Your task to perform on an android device: turn off translation in the chrome app Image 0: 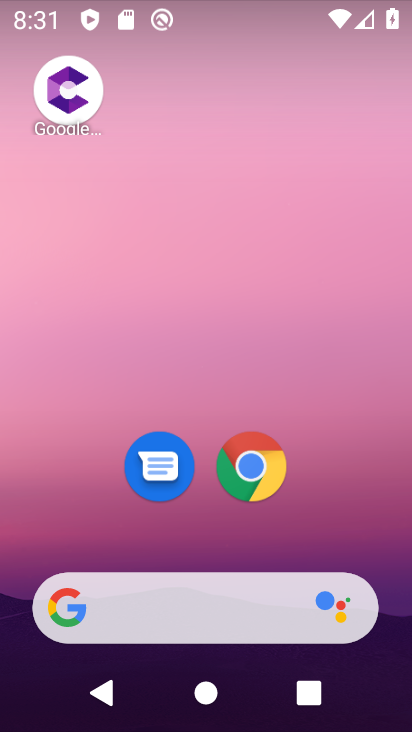
Step 0: click (255, 473)
Your task to perform on an android device: turn off translation in the chrome app Image 1: 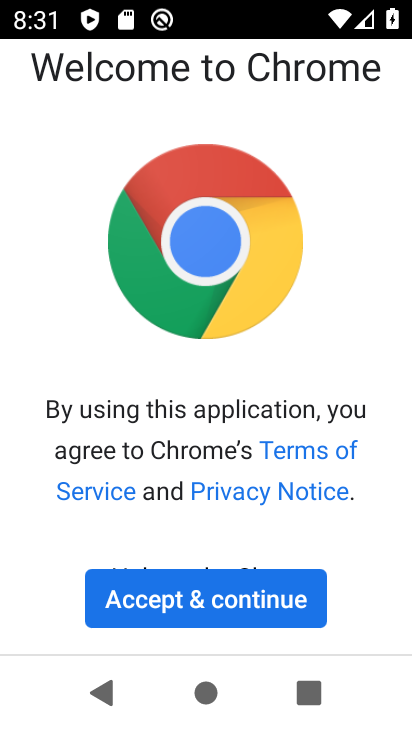
Step 1: click (197, 598)
Your task to perform on an android device: turn off translation in the chrome app Image 2: 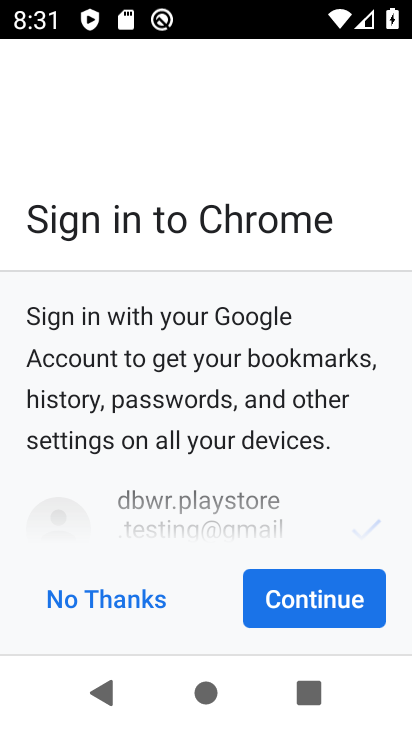
Step 2: click (312, 604)
Your task to perform on an android device: turn off translation in the chrome app Image 3: 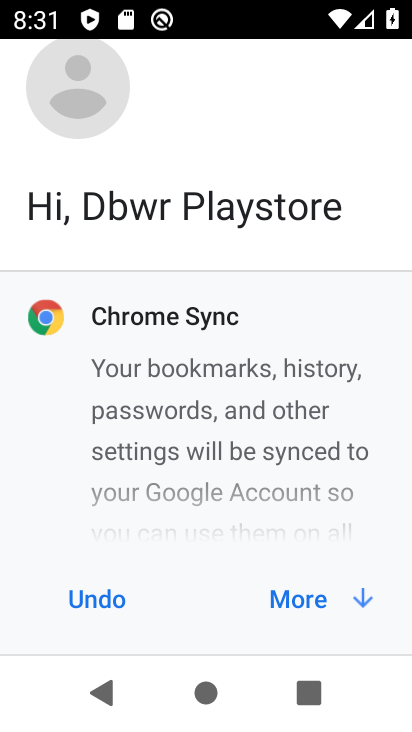
Step 3: click (312, 604)
Your task to perform on an android device: turn off translation in the chrome app Image 4: 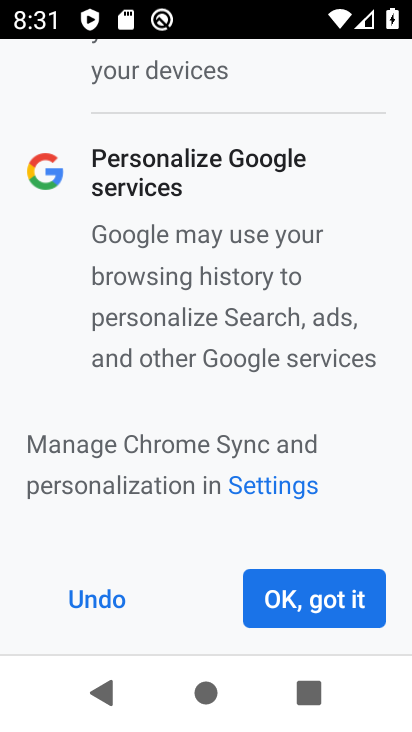
Step 4: click (312, 604)
Your task to perform on an android device: turn off translation in the chrome app Image 5: 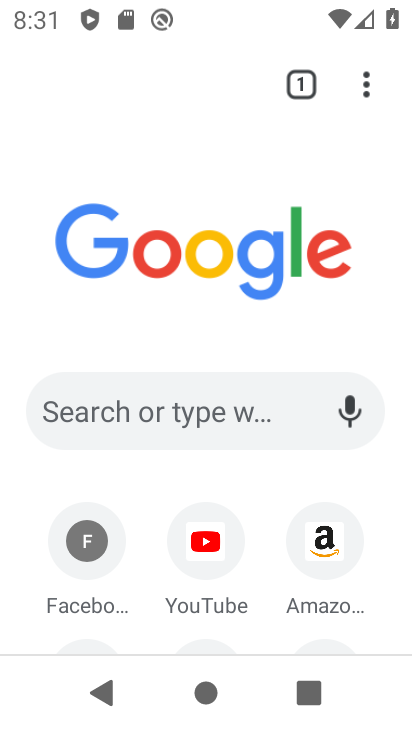
Step 5: click (364, 91)
Your task to perform on an android device: turn off translation in the chrome app Image 6: 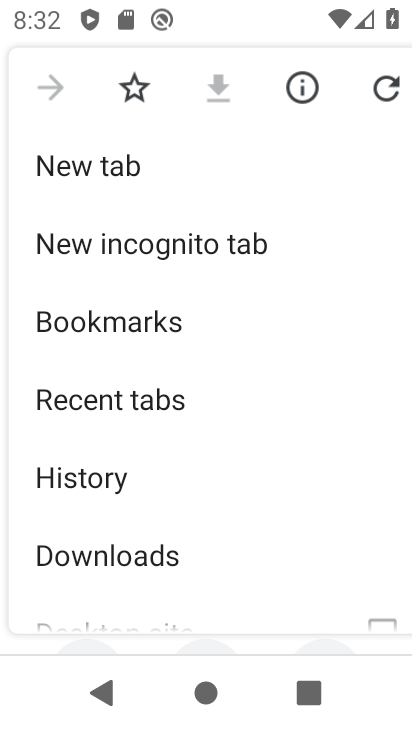
Step 6: drag from (192, 459) to (227, 328)
Your task to perform on an android device: turn off translation in the chrome app Image 7: 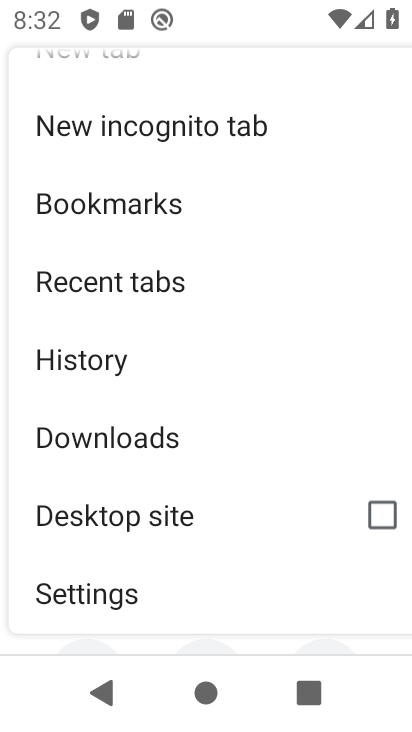
Step 7: drag from (205, 464) to (236, 388)
Your task to perform on an android device: turn off translation in the chrome app Image 8: 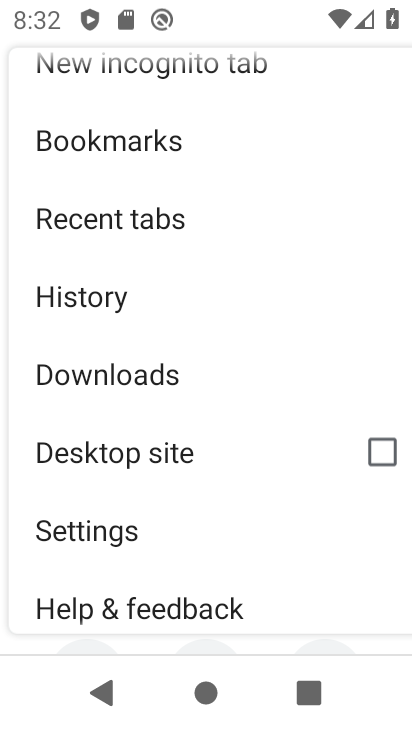
Step 8: click (101, 533)
Your task to perform on an android device: turn off translation in the chrome app Image 9: 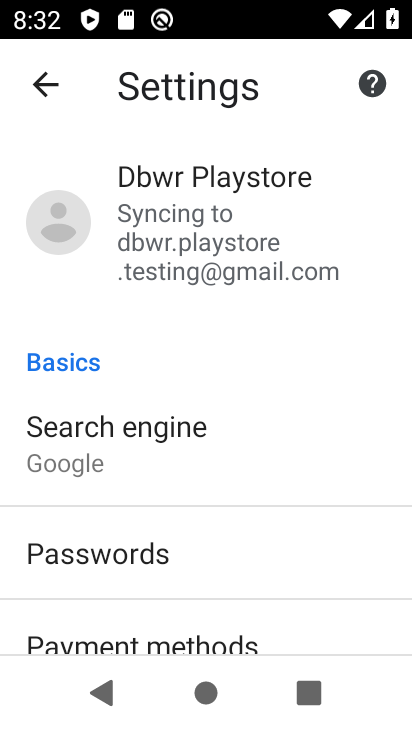
Step 9: drag from (144, 532) to (216, 378)
Your task to perform on an android device: turn off translation in the chrome app Image 10: 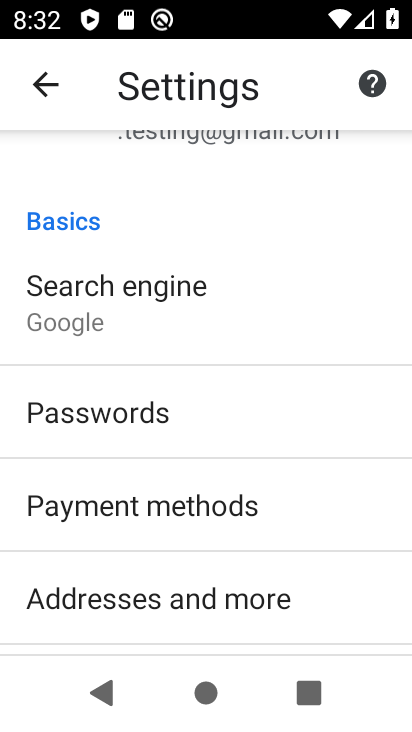
Step 10: drag from (197, 494) to (252, 360)
Your task to perform on an android device: turn off translation in the chrome app Image 11: 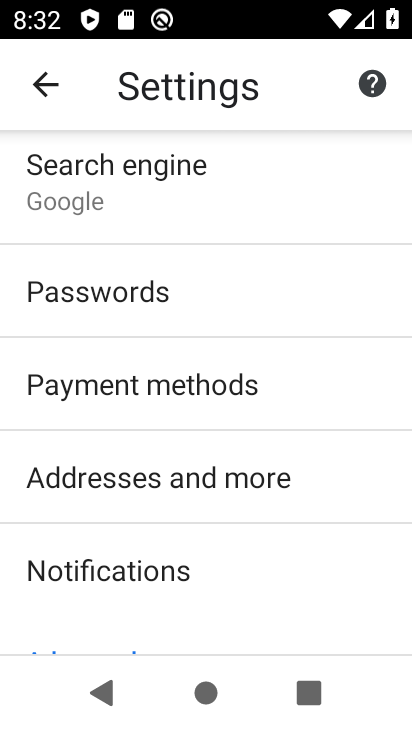
Step 11: drag from (185, 500) to (239, 365)
Your task to perform on an android device: turn off translation in the chrome app Image 12: 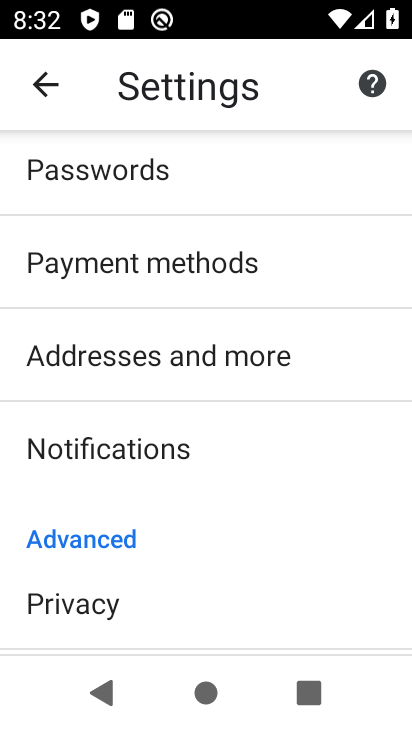
Step 12: drag from (199, 470) to (244, 380)
Your task to perform on an android device: turn off translation in the chrome app Image 13: 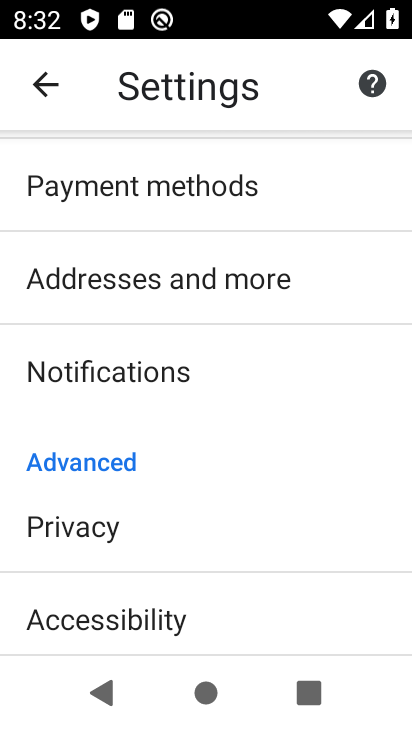
Step 13: drag from (184, 521) to (225, 410)
Your task to perform on an android device: turn off translation in the chrome app Image 14: 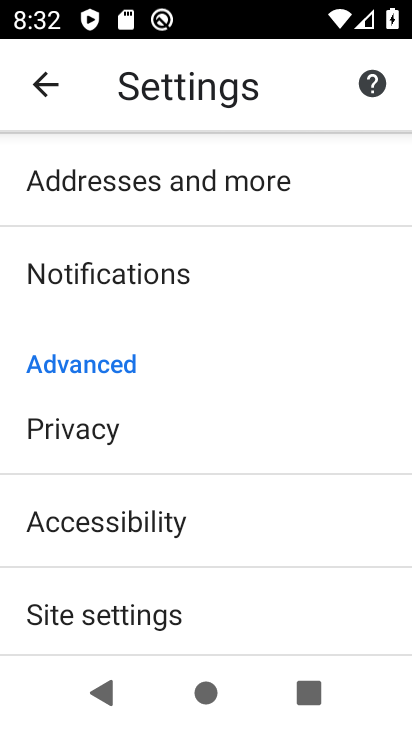
Step 14: drag from (177, 568) to (244, 462)
Your task to perform on an android device: turn off translation in the chrome app Image 15: 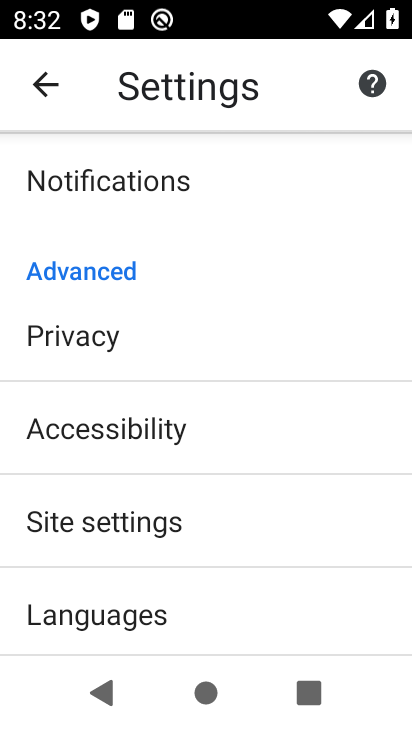
Step 15: drag from (172, 575) to (244, 462)
Your task to perform on an android device: turn off translation in the chrome app Image 16: 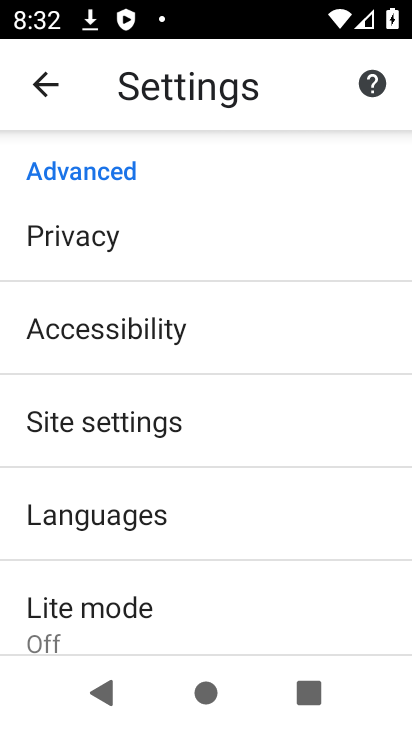
Step 16: click (132, 505)
Your task to perform on an android device: turn off translation in the chrome app Image 17: 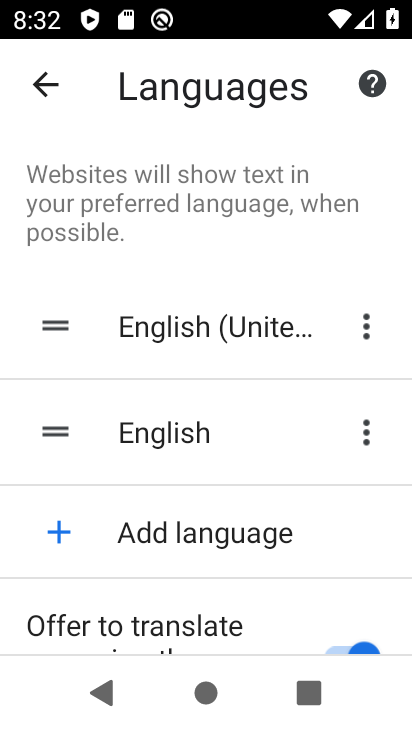
Step 17: drag from (233, 603) to (286, 497)
Your task to perform on an android device: turn off translation in the chrome app Image 18: 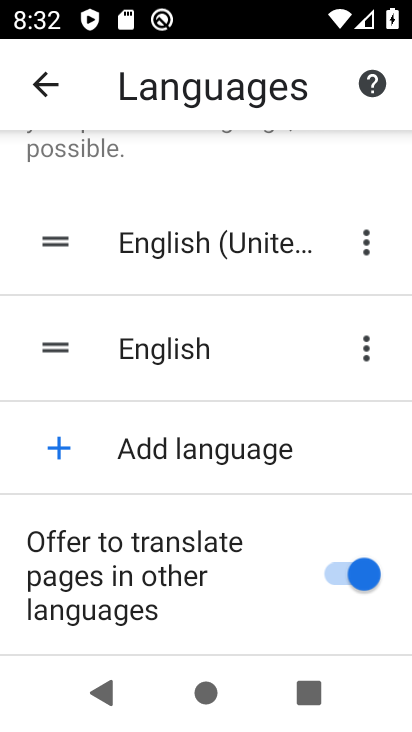
Step 18: click (358, 586)
Your task to perform on an android device: turn off translation in the chrome app Image 19: 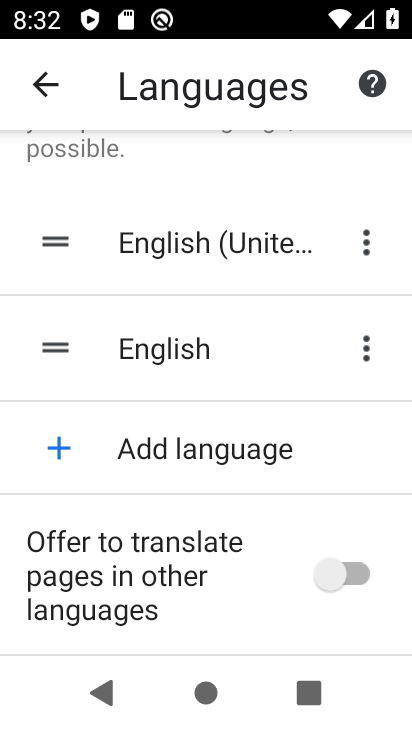
Step 19: task complete